Your task to perform on an android device: add a label to a message in the gmail app Image 0: 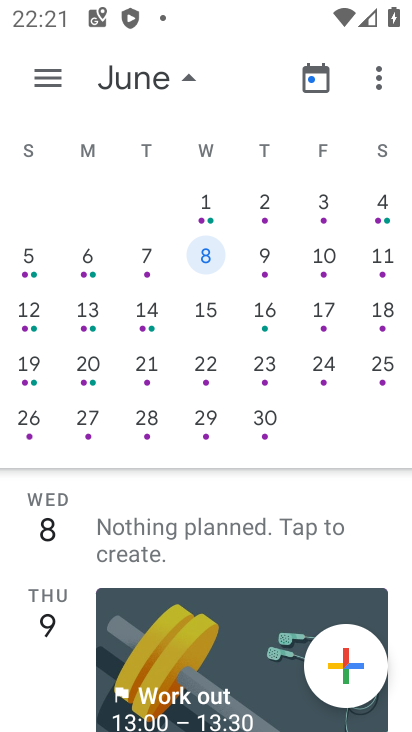
Step 0: press home button
Your task to perform on an android device: add a label to a message in the gmail app Image 1: 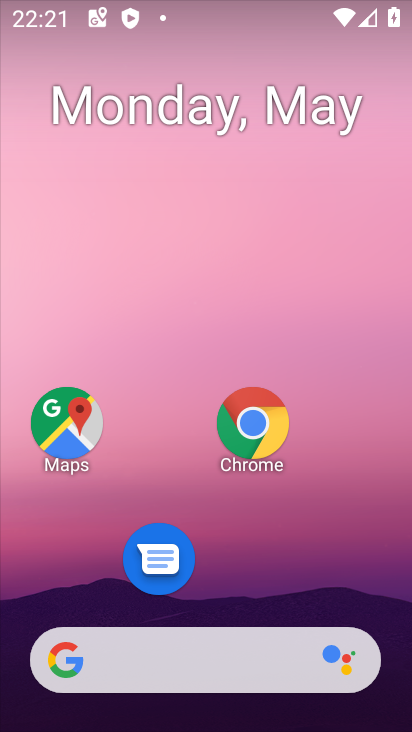
Step 1: drag from (233, 608) to (263, 48)
Your task to perform on an android device: add a label to a message in the gmail app Image 2: 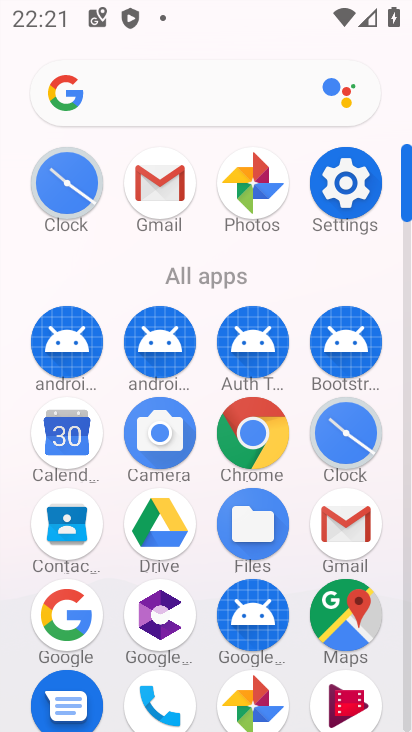
Step 2: click (161, 172)
Your task to perform on an android device: add a label to a message in the gmail app Image 3: 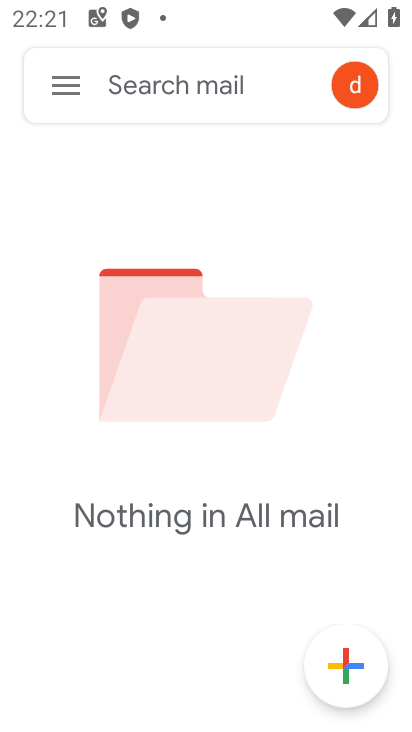
Step 3: task complete